Your task to perform on an android device: Open Amazon Image 0: 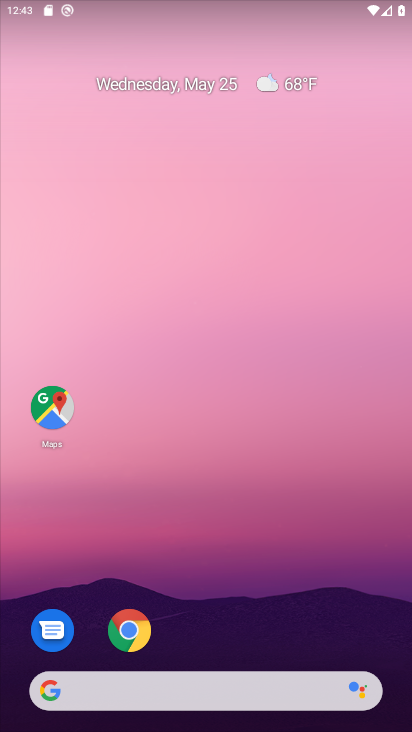
Step 0: click (134, 636)
Your task to perform on an android device: Open Amazon Image 1: 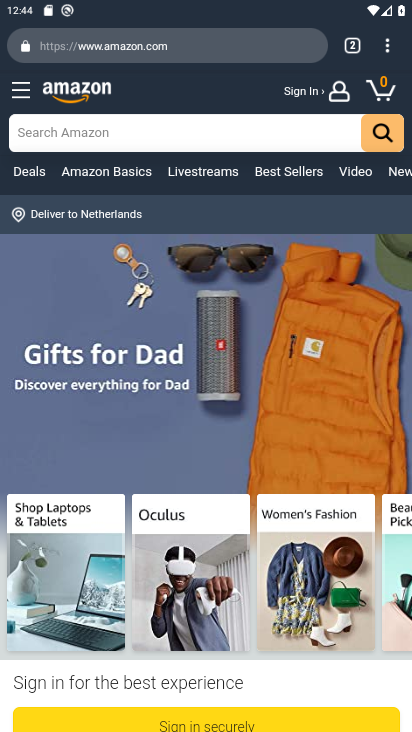
Step 1: task complete